Your task to perform on an android device: turn off javascript in the chrome app Image 0: 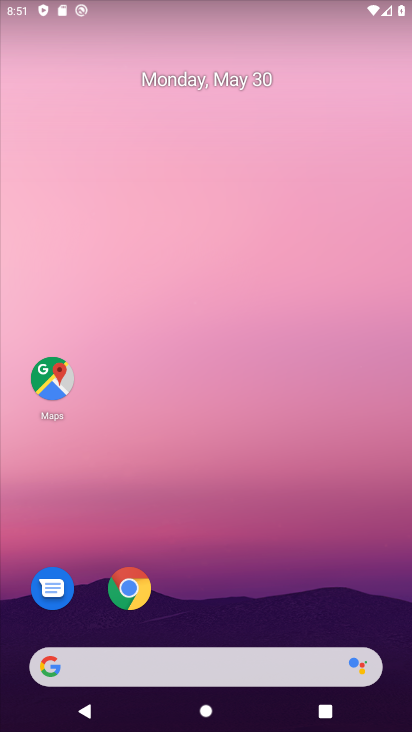
Step 0: drag from (329, 588) to (335, 108)
Your task to perform on an android device: turn off javascript in the chrome app Image 1: 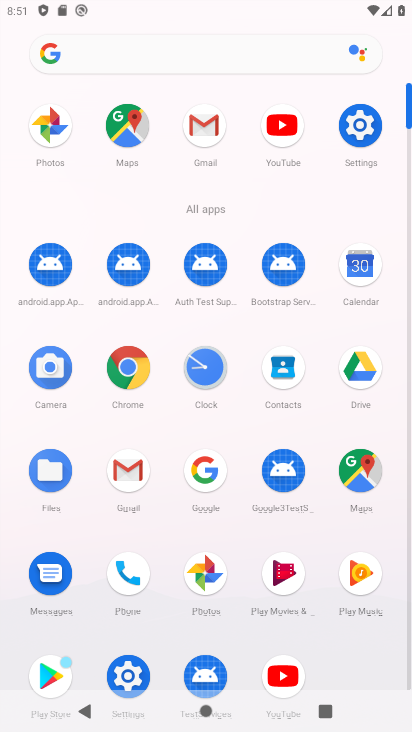
Step 1: click (140, 363)
Your task to perform on an android device: turn off javascript in the chrome app Image 2: 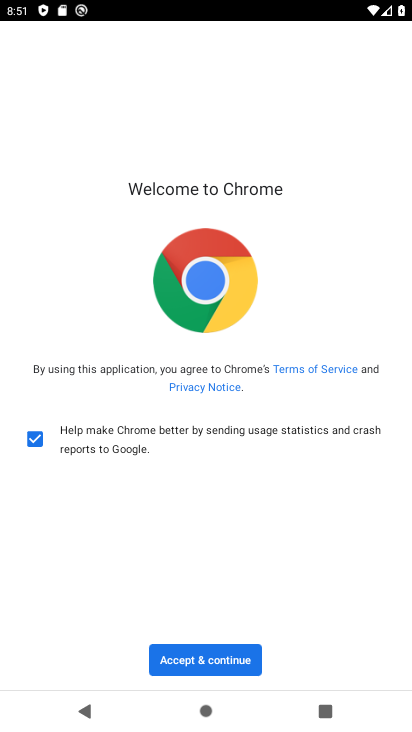
Step 2: click (221, 651)
Your task to perform on an android device: turn off javascript in the chrome app Image 3: 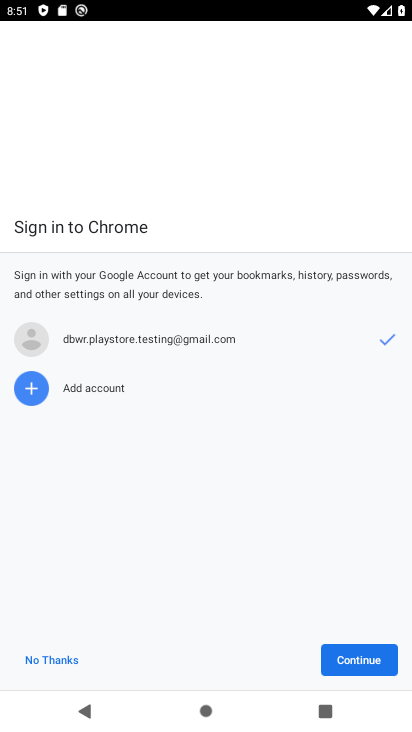
Step 3: click (338, 650)
Your task to perform on an android device: turn off javascript in the chrome app Image 4: 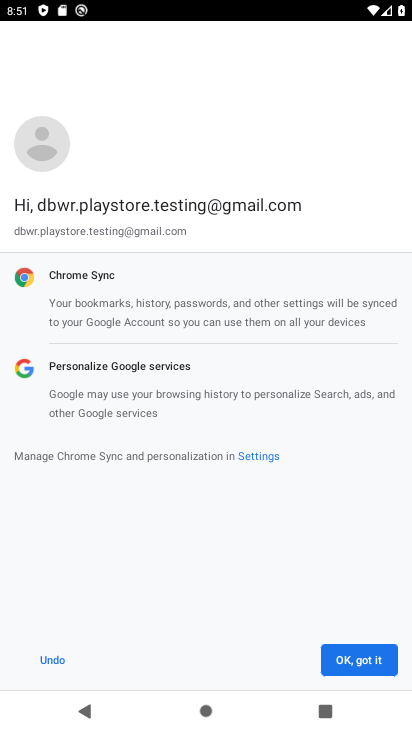
Step 4: click (343, 663)
Your task to perform on an android device: turn off javascript in the chrome app Image 5: 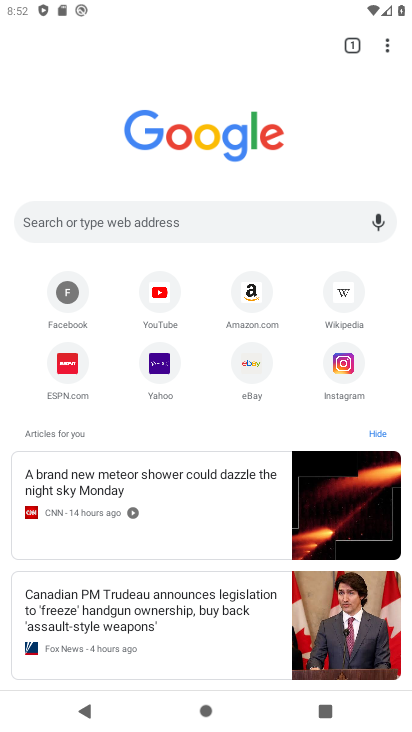
Step 5: drag from (242, 641) to (278, 291)
Your task to perform on an android device: turn off javascript in the chrome app Image 6: 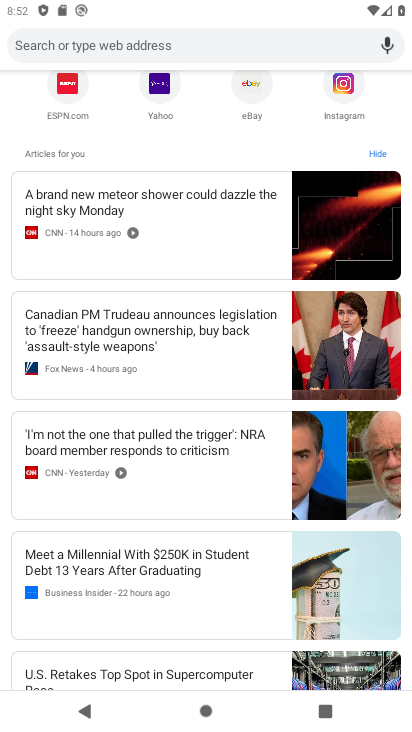
Step 6: drag from (204, 234) to (252, 647)
Your task to perform on an android device: turn off javascript in the chrome app Image 7: 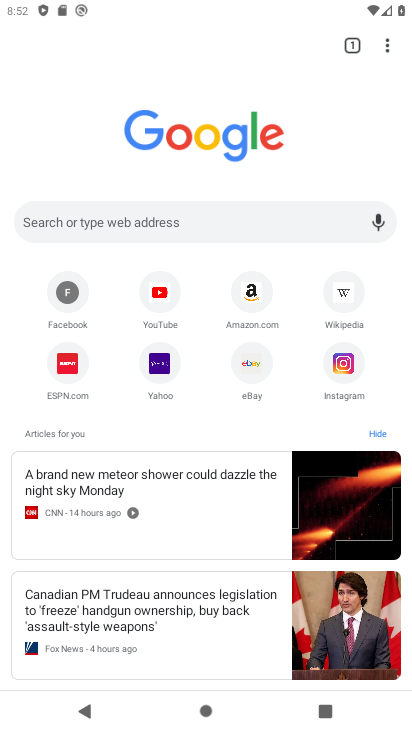
Step 7: click (384, 51)
Your task to perform on an android device: turn off javascript in the chrome app Image 8: 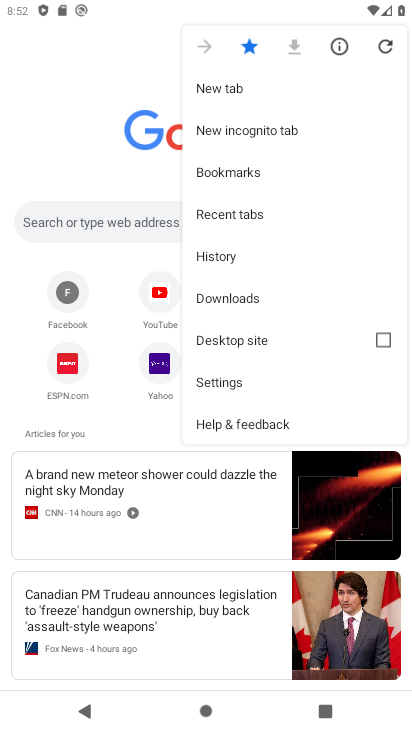
Step 8: drag from (274, 390) to (307, 169)
Your task to perform on an android device: turn off javascript in the chrome app Image 9: 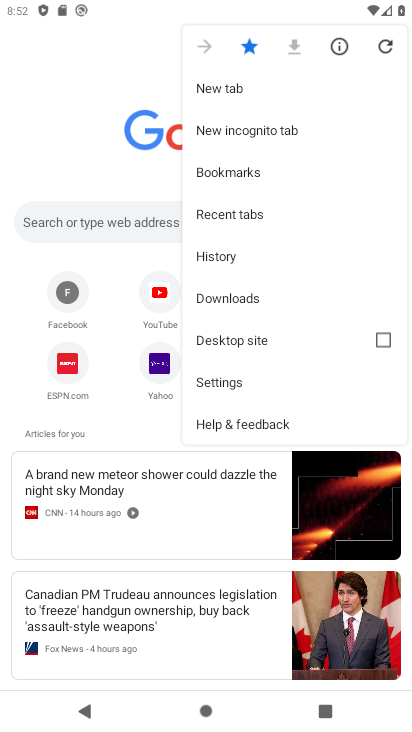
Step 9: click (255, 380)
Your task to perform on an android device: turn off javascript in the chrome app Image 10: 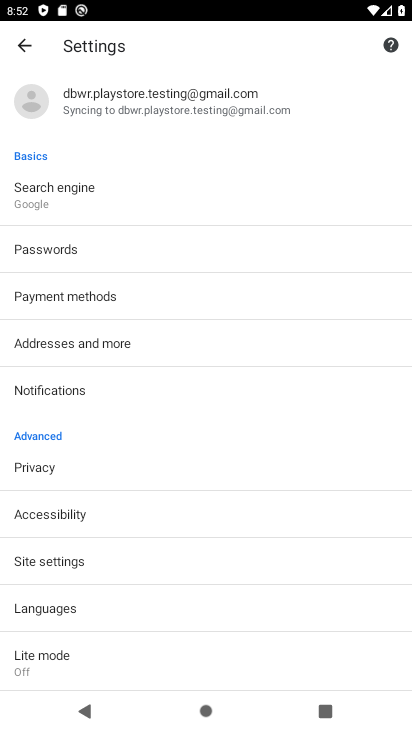
Step 10: drag from (163, 593) to (245, 184)
Your task to perform on an android device: turn off javascript in the chrome app Image 11: 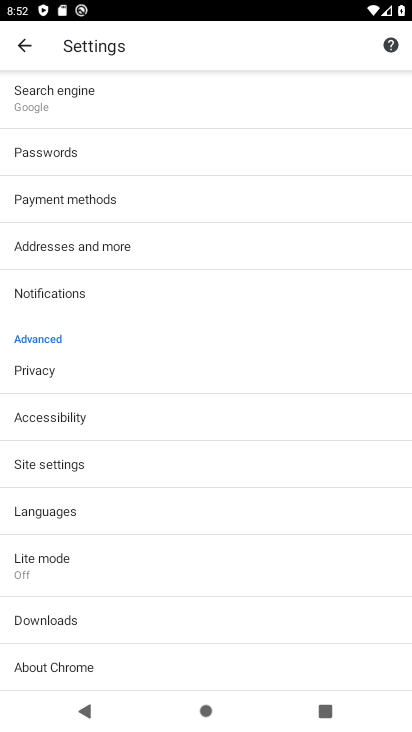
Step 11: drag from (213, 630) to (275, 257)
Your task to perform on an android device: turn off javascript in the chrome app Image 12: 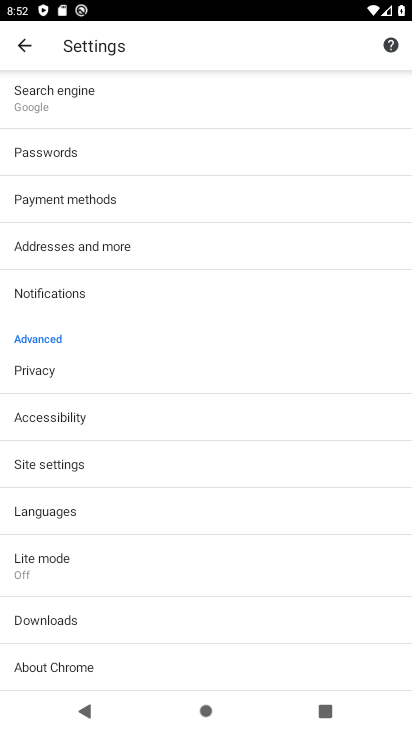
Step 12: click (164, 461)
Your task to perform on an android device: turn off javascript in the chrome app Image 13: 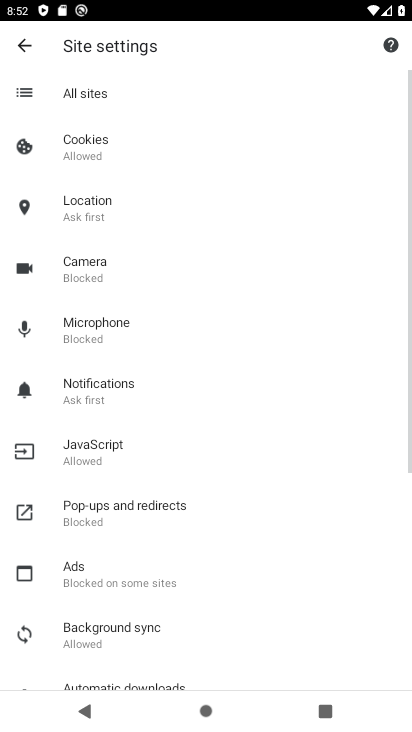
Step 13: drag from (289, 632) to (291, 321)
Your task to perform on an android device: turn off javascript in the chrome app Image 14: 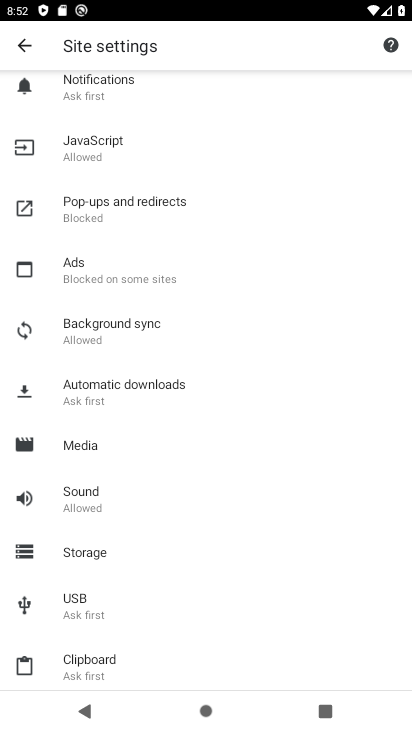
Step 14: click (136, 151)
Your task to perform on an android device: turn off javascript in the chrome app Image 15: 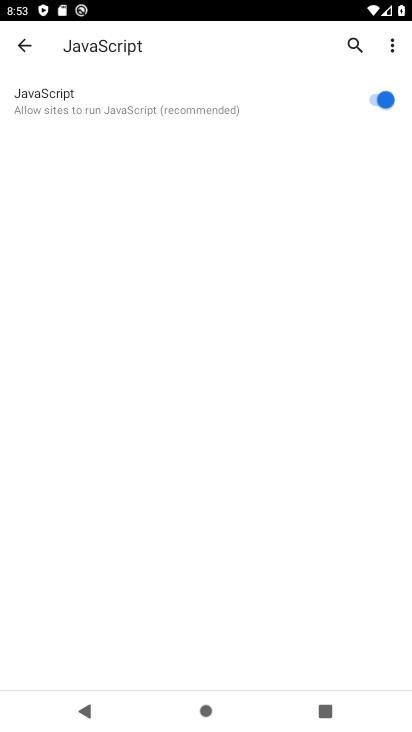
Step 15: click (370, 104)
Your task to perform on an android device: turn off javascript in the chrome app Image 16: 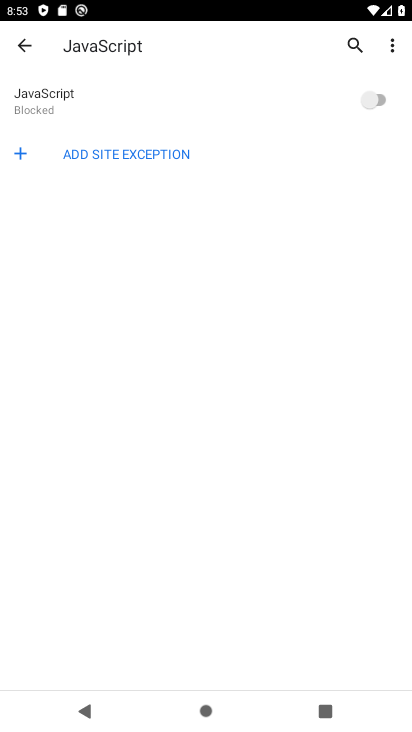
Step 16: task complete